Your task to perform on an android device: move an email to a new category in the gmail app Image 0: 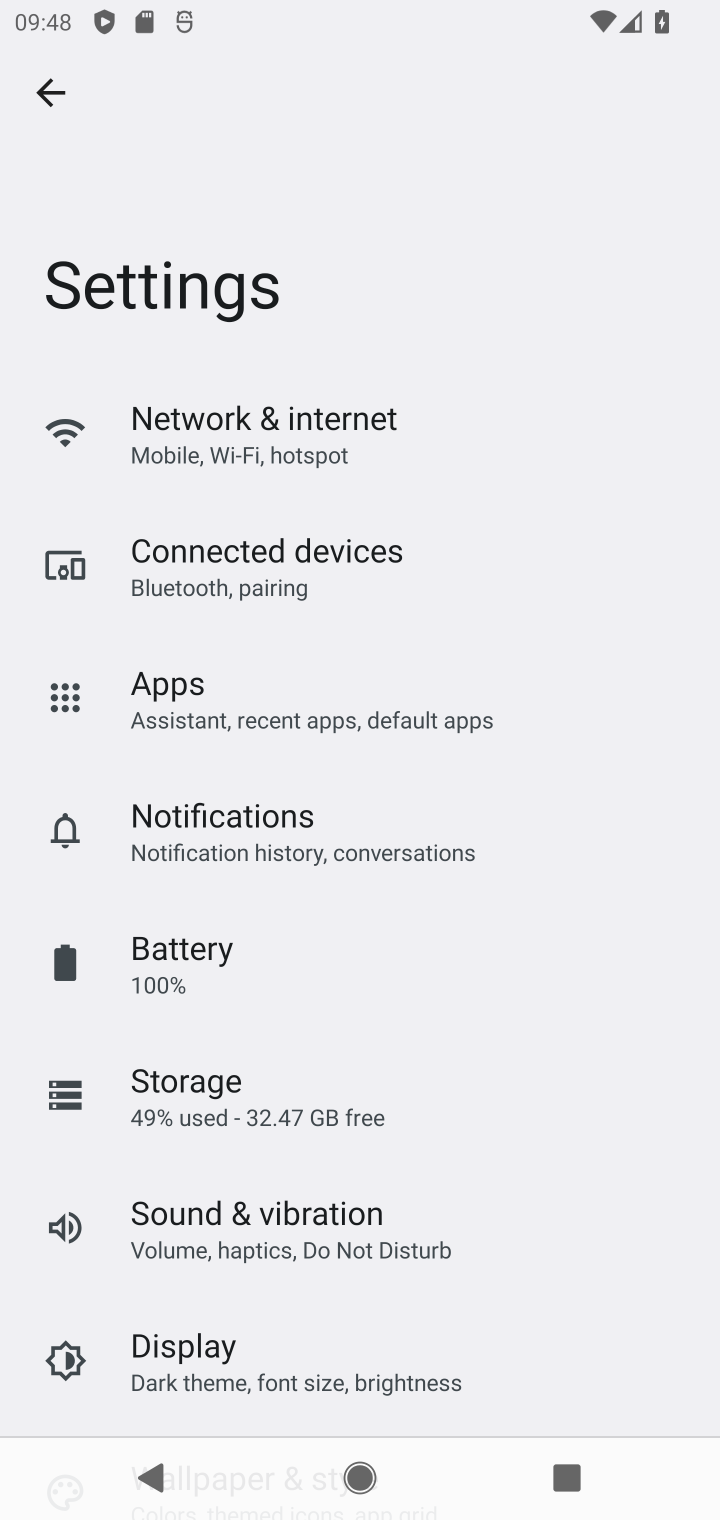
Step 0: press home button
Your task to perform on an android device: move an email to a new category in the gmail app Image 1: 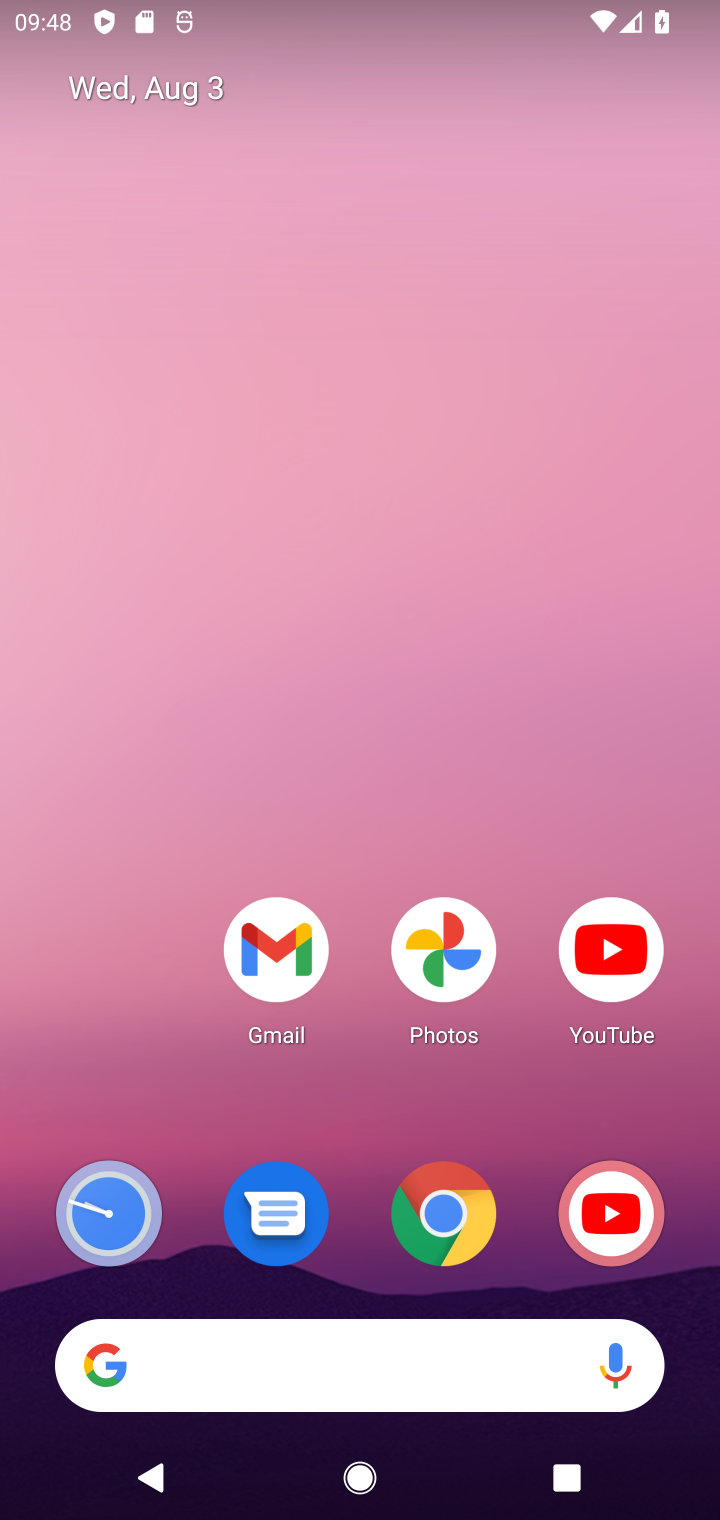
Step 1: drag from (671, 849) to (576, 136)
Your task to perform on an android device: move an email to a new category in the gmail app Image 2: 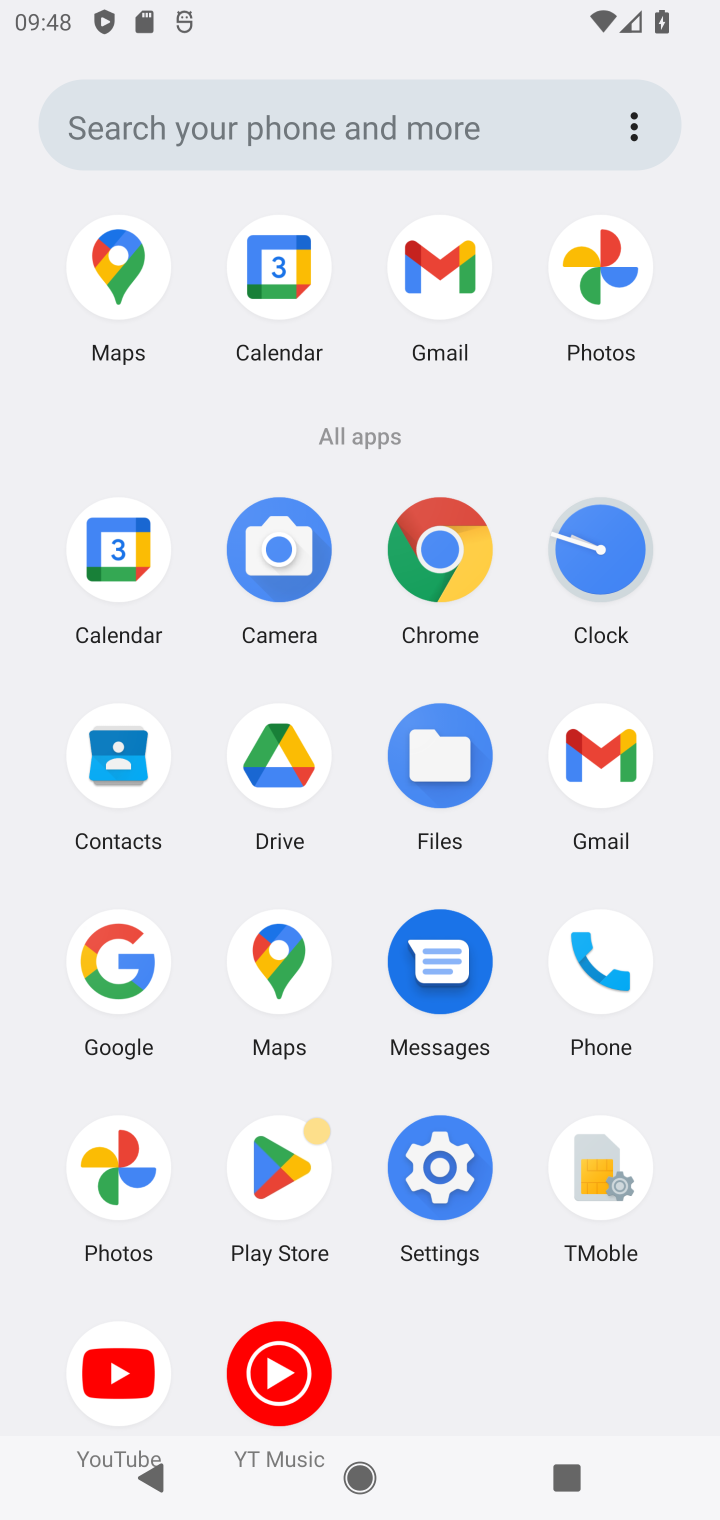
Step 2: click (603, 762)
Your task to perform on an android device: move an email to a new category in the gmail app Image 3: 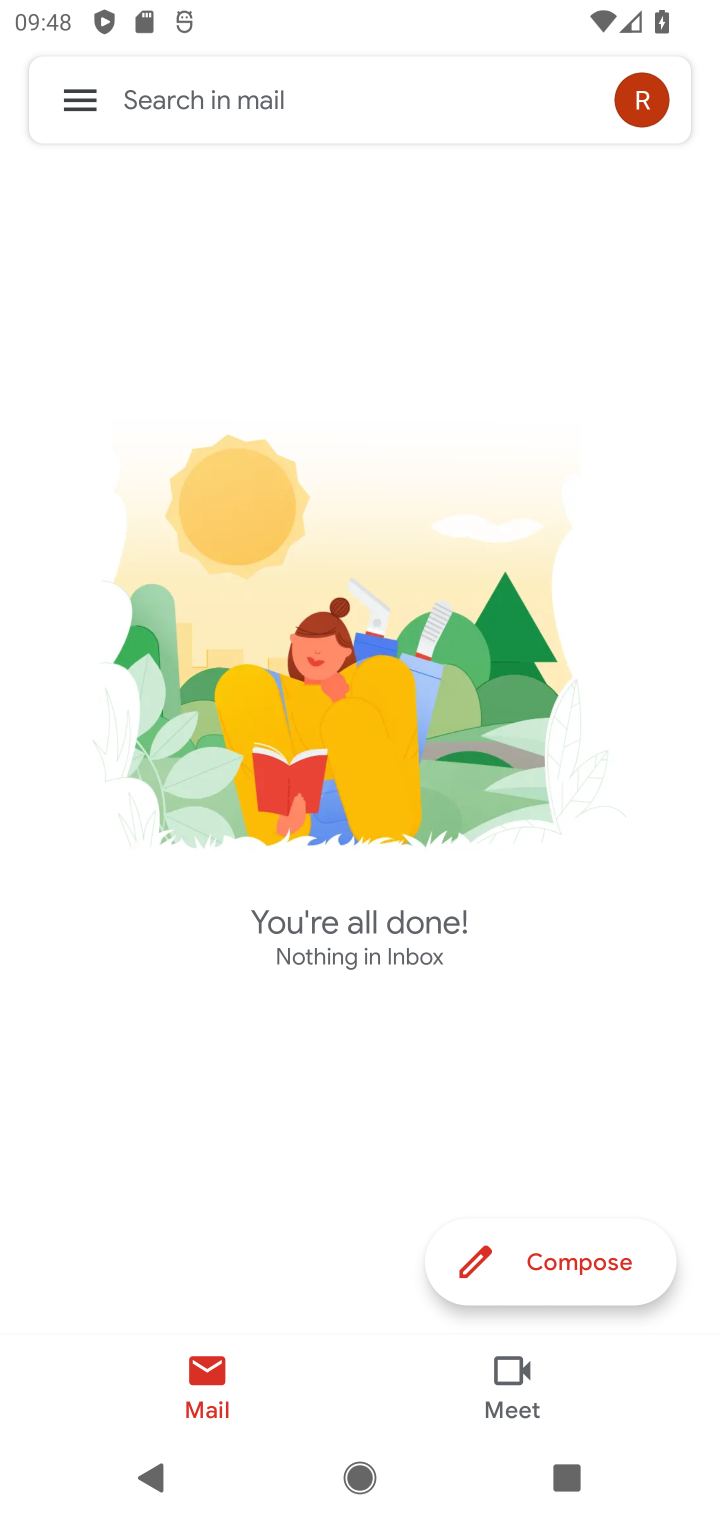
Step 3: click (70, 89)
Your task to perform on an android device: move an email to a new category in the gmail app Image 4: 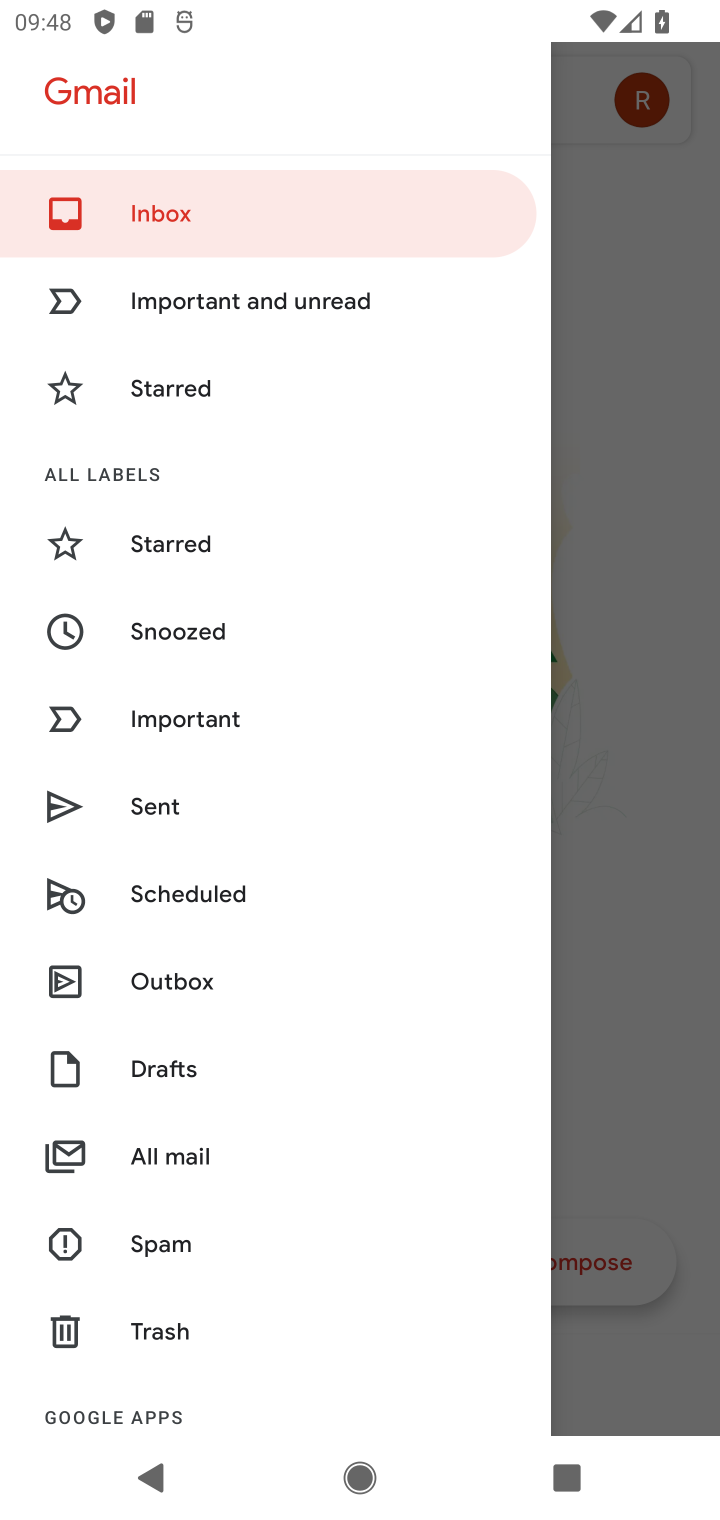
Step 4: click (197, 1149)
Your task to perform on an android device: move an email to a new category in the gmail app Image 5: 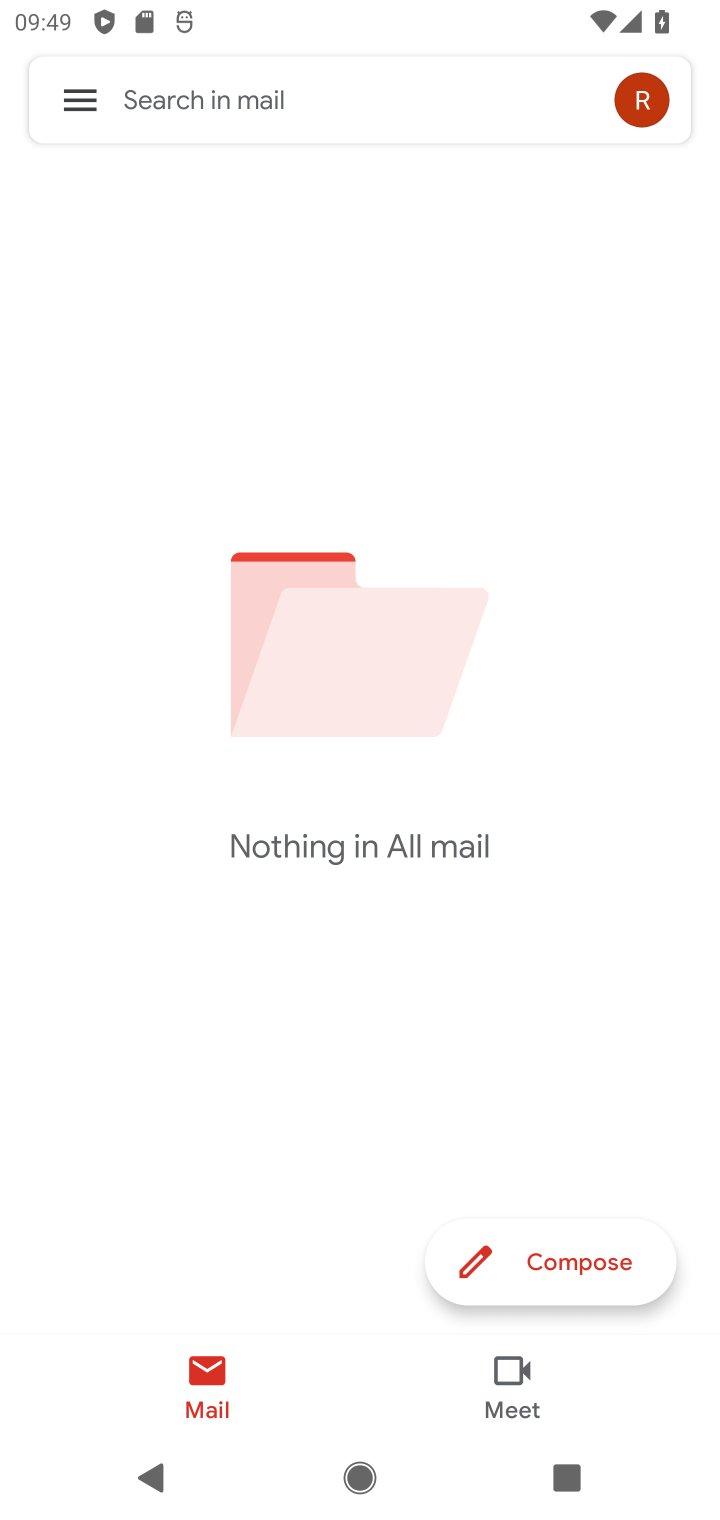
Step 5: click (81, 108)
Your task to perform on an android device: move an email to a new category in the gmail app Image 6: 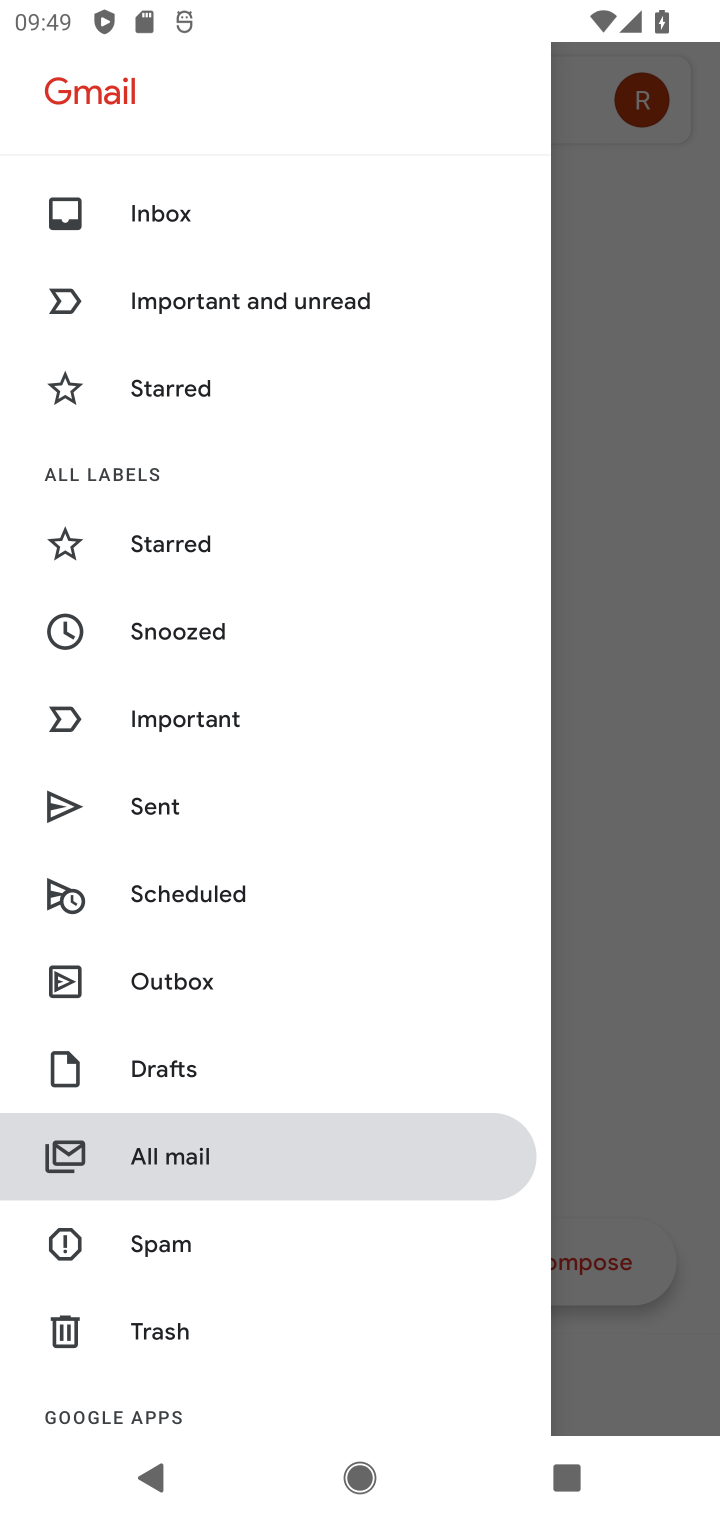
Step 6: task complete